Your task to perform on an android device: find photos in the google photos app Image 0: 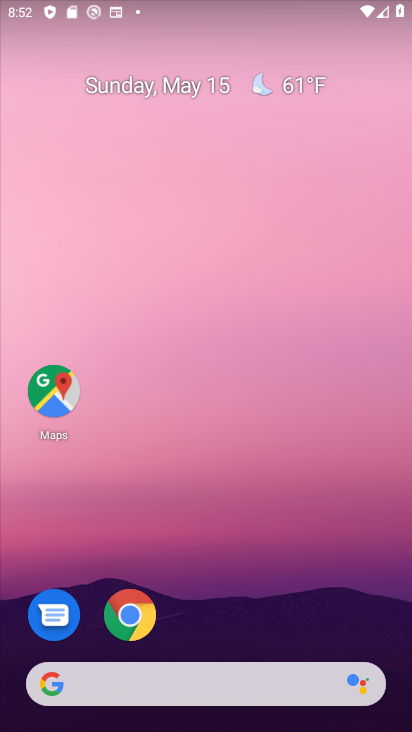
Step 0: drag from (243, 561) to (199, 23)
Your task to perform on an android device: find photos in the google photos app Image 1: 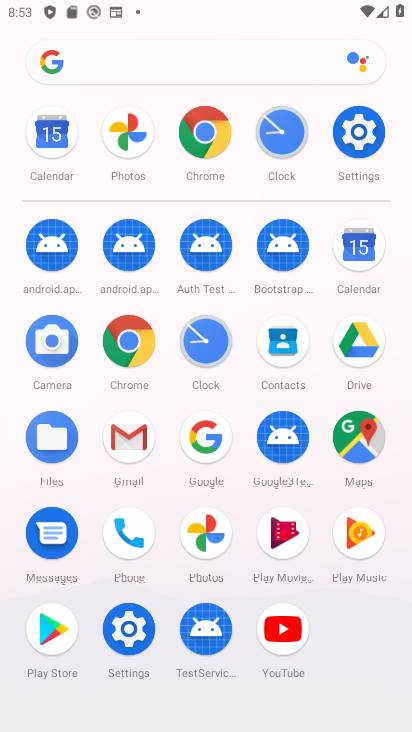
Step 1: click (206, 531)
Your task to perform on an android device: find photos in the google photos app Image 2: 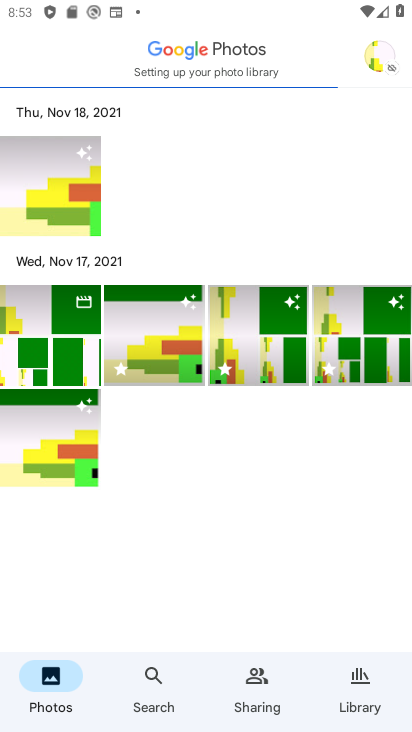
Step 2: task complete